Your task to perform on an android device: find snoozed emails in the gmail app Image 0: 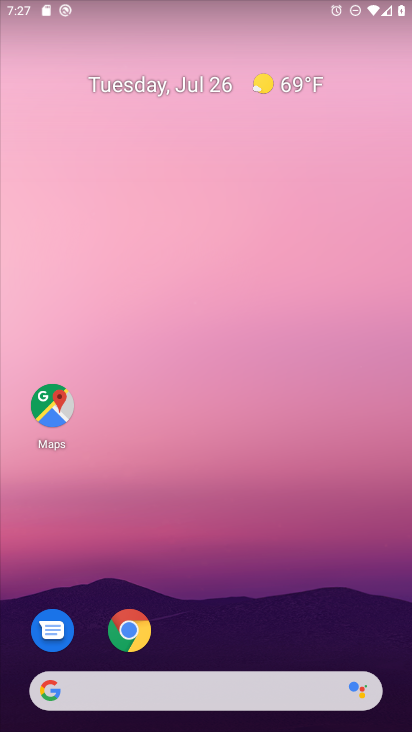
Step 0: drag from (205, 585) to (190, 235)
Your task to perform on an android device: find snoozed emails in the gmail app Image 1: 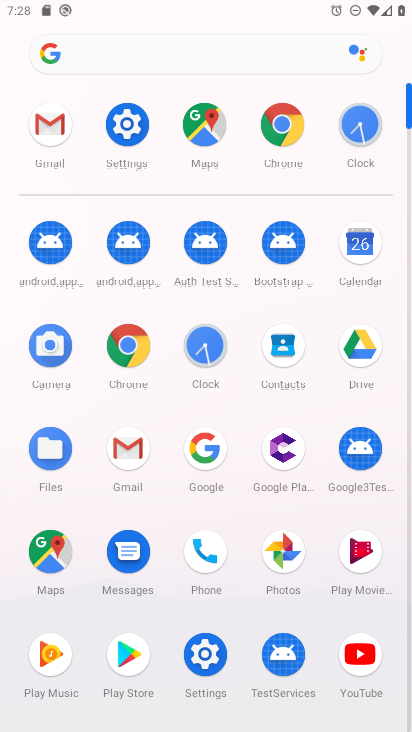
Step 1: click (138, 462)
Your task to perform on an android device: find snoozed emails in the gmail app Image 2: 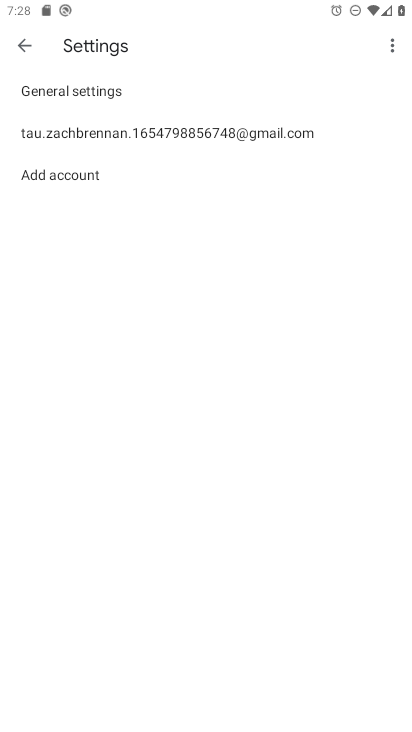
Step 2: press back button
Your task to perform on an android device: find snoozed emails in the gmail app Image 3: 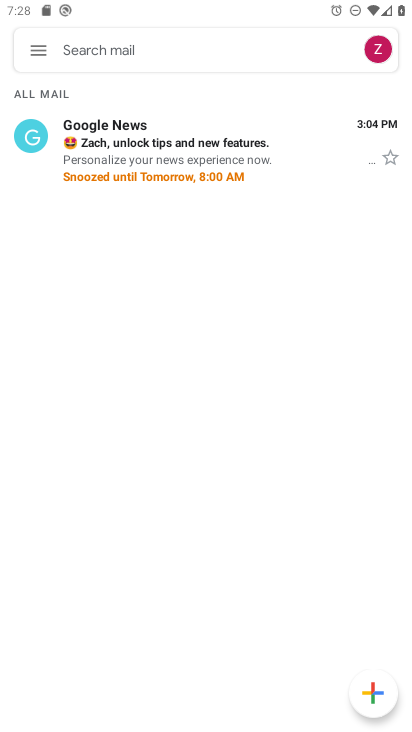
Step 3: click (30, 61)
Your task to perform on an android device: find snoozed emails in the gmail app Image 4: 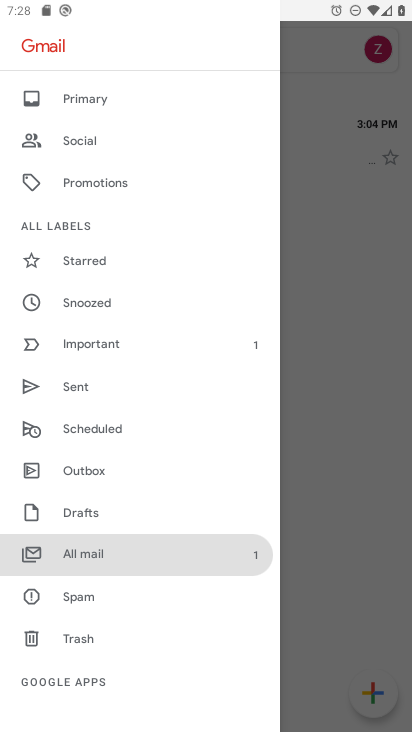
Step 4: click (142, 304)
Your task to perform on an android device: find snoozed emails in the gmail app Image 5: 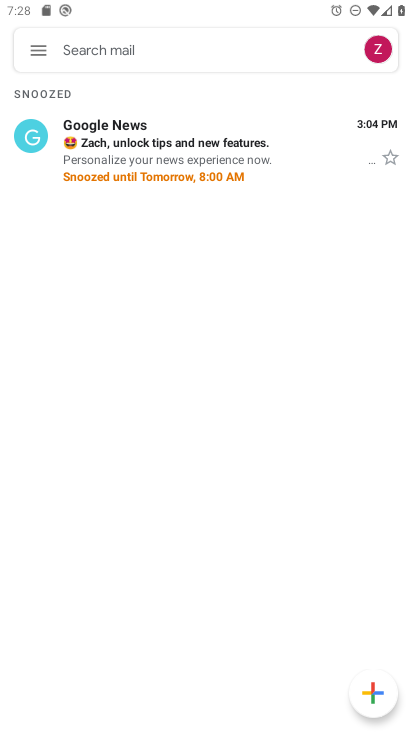
Step 5: task complete